Your task to perform on an android device: Check the weather Image 0: 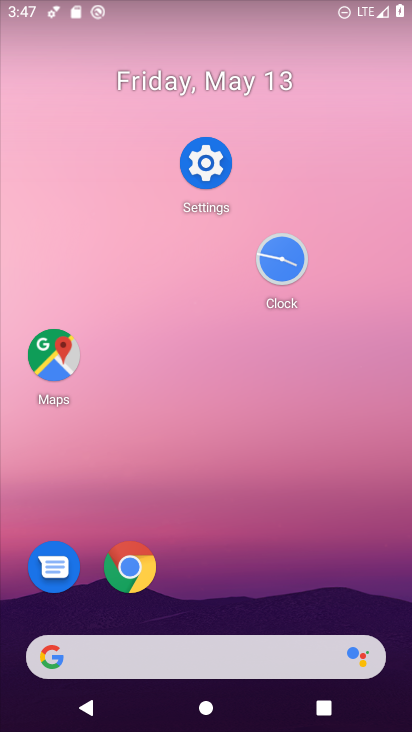
Step 0: click (193, 650)
Your task to perform on an android device: Check the weather Image 1: 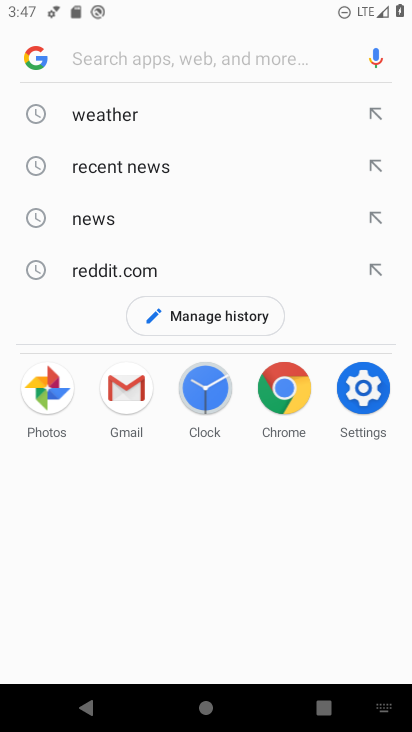
Step 1: click (202, 104)
Your task to perform on an android device: Check the weather Image 2: 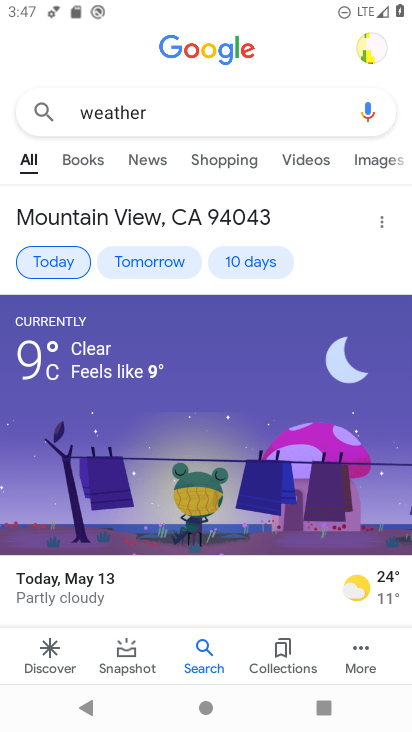
Step 2: task complete